Your task to perform on an android device: show emergency info Image 0: 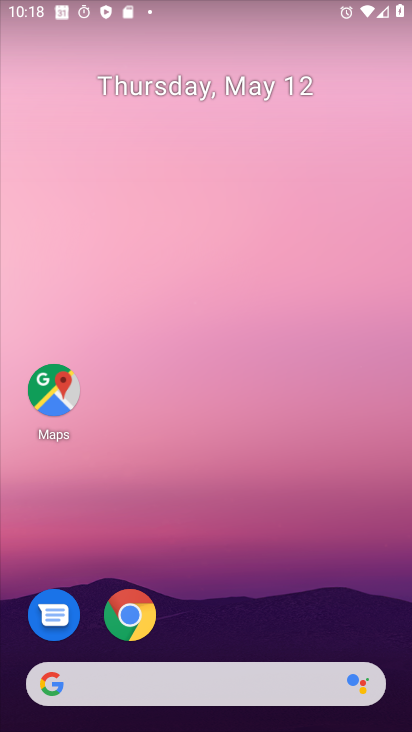
Step 0: drag from (188, 638) to (235, 214)
Your task to perform on an android device: show emergency info Image 1: 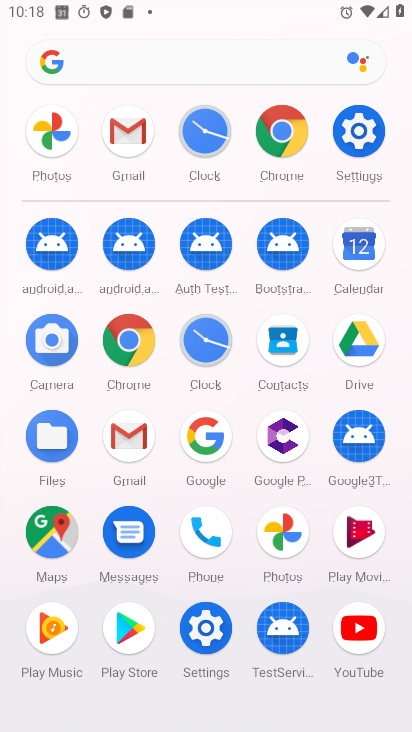
Step 1: click (366, 133)
Your task to perform on an android device: show emergency info Image 2: 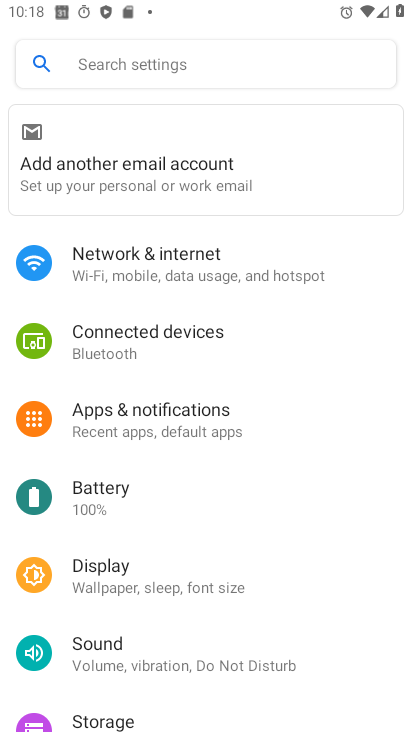
Step 2: drag from (224, 588) to (297, 7)
Your task to perform on an android device: show emergency info Image 3: 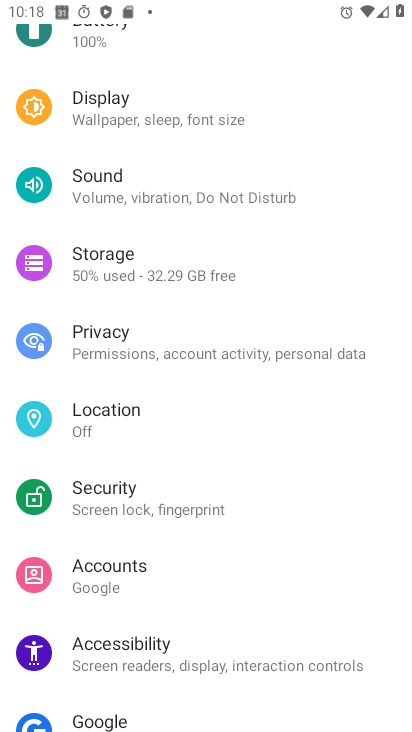
Step 3: drag from (186, 593) to (250, 5)
Your task to perform on an android device: show emergency info Image 4: 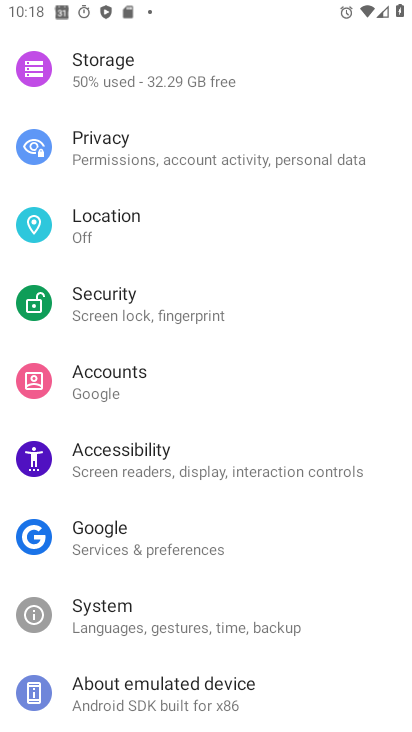
Step 4: click (163, 701)
Your task to perform on an android device: show emergency info Image 5: 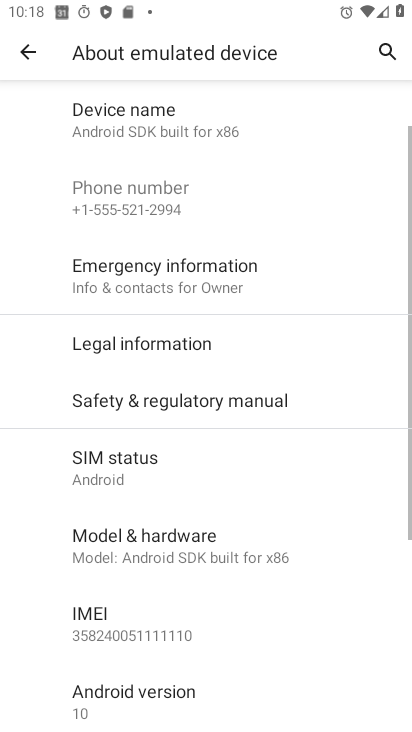
Step 5: click (246, 285)
Your task to perform on an android device: show emergency info Image 6: 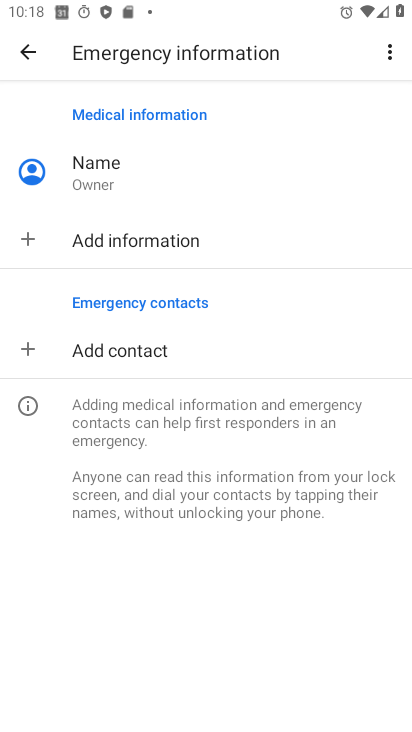
Step 6: task complete